Your task to perform on an android device: See recent photos Image 0: 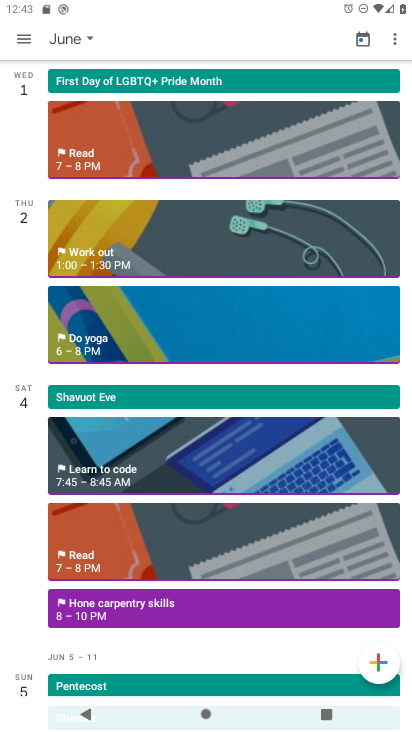
Step 0: drag from (283, 689) to (276, 540)
Your task to perform on an android device: See recent photos Image 1: 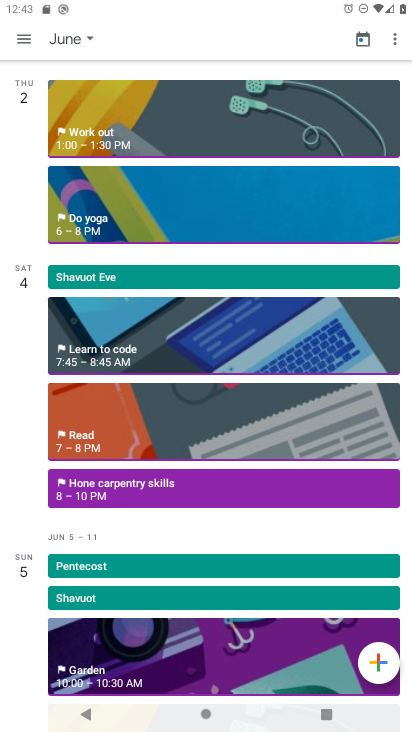
Step 1: press home button
Your task to perform on an android device: See recent photos Image 2: 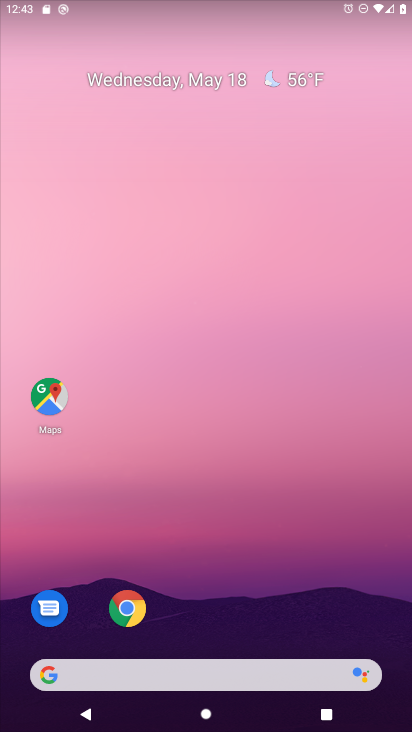
Step 2: drag from (246, 681) to (343, 161)
Your task to perform on an android device: See recent photos Image 3: 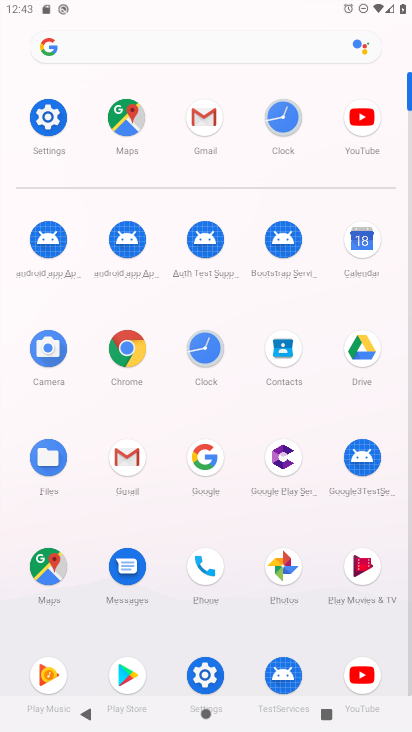
Step 3: click (265, 565)
Your task to perform on an android device: See recent photos Image 4: 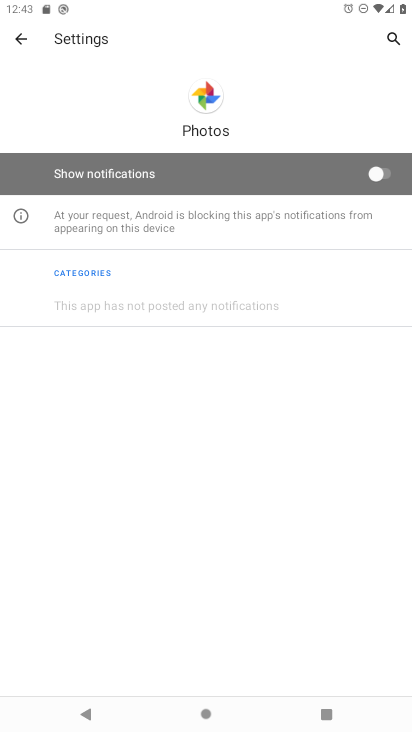
Step 4: click (24, 49)
Your task to perform on an android device: See recent photos Image 5: 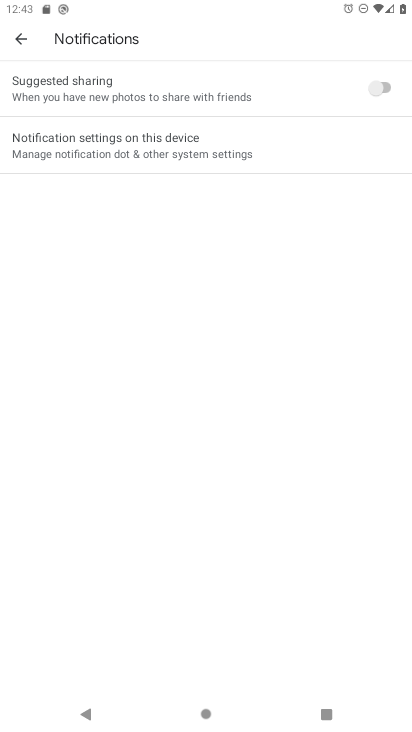
Step 5: click (21, 39)
Your task to perform on an android device: See recent photos Image 6: 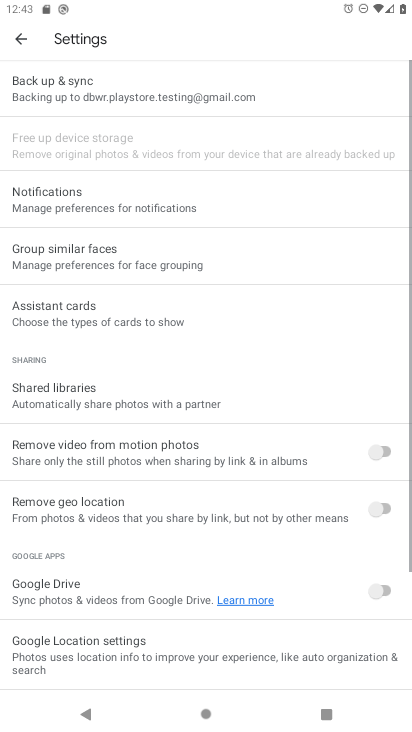
Step 6: click (21, 39)
Your task to perform on an android device: See recent photos Image 7: 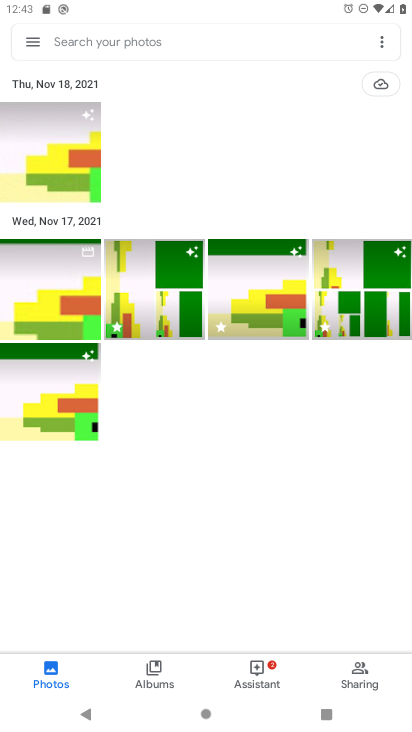
Step 7: task complete